Your task to perform on an android device: Open notification settings Image 0: 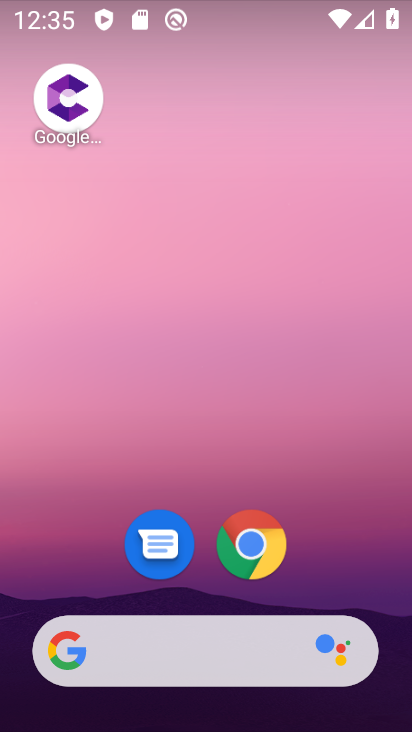
Step 0: drag from (401, 642) to (326, 80)
Your task to perform on an android device: Open notification settings Image 1: 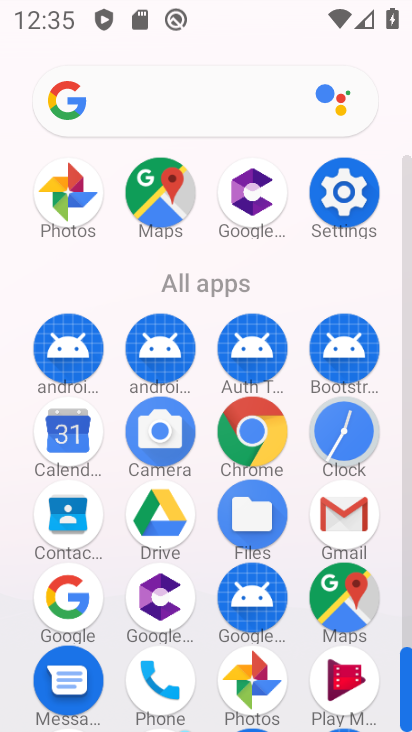
Step 1: drag from (409, 624) to (406, 570)
Your task to perform on an android device: Open notification settings Image 2: 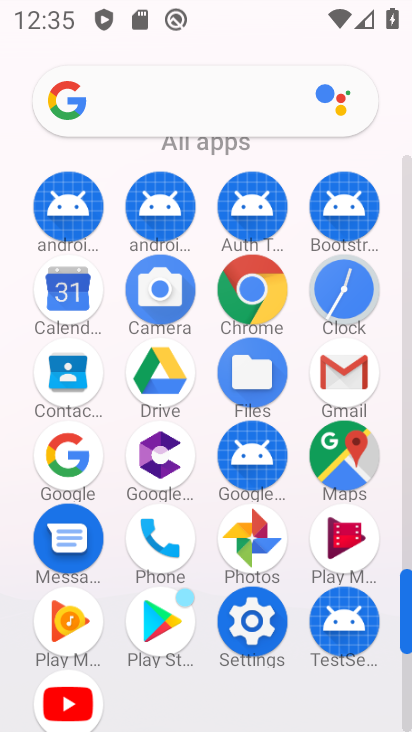
Step 2: click (252, 619)
Your task to perform on an android device: Open notification settings Image 3: 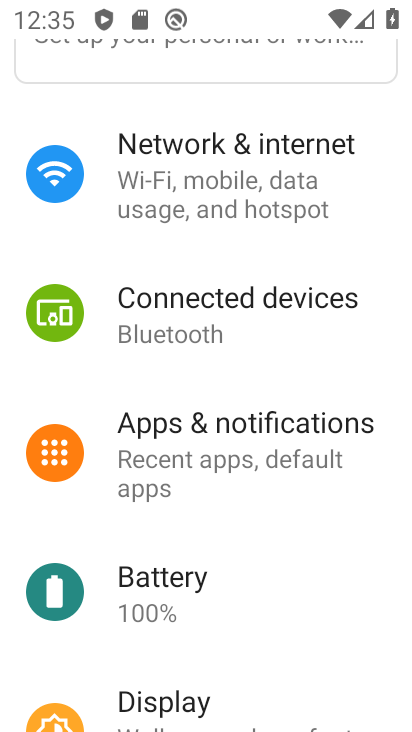
Step 3: click (180, 429)
Your task to perform on an android device: Open notification settings Image 4: 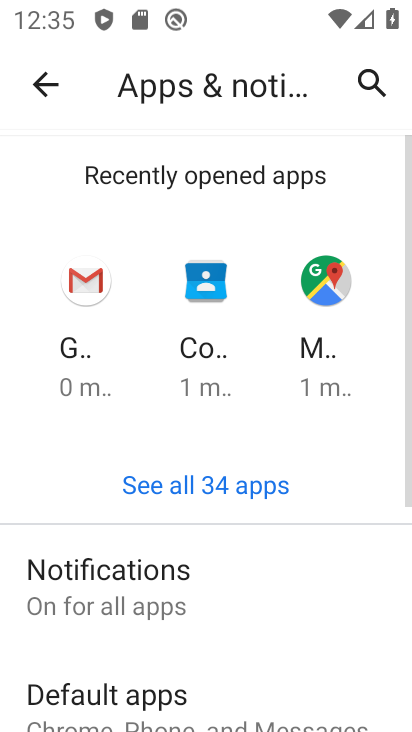
Step 4: drag from (259, 609) to (275, 220)
Your task to perform on an android device: Open notification settings Image 5: 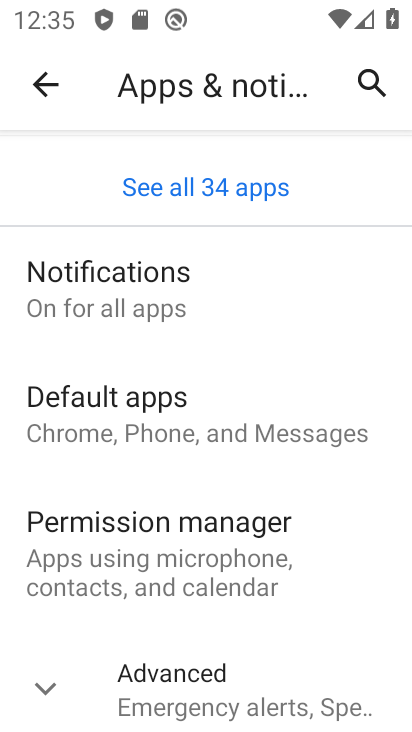
Step 5: click (83, 272)
Your task to perform on an android device: Open notification settings Image 6: 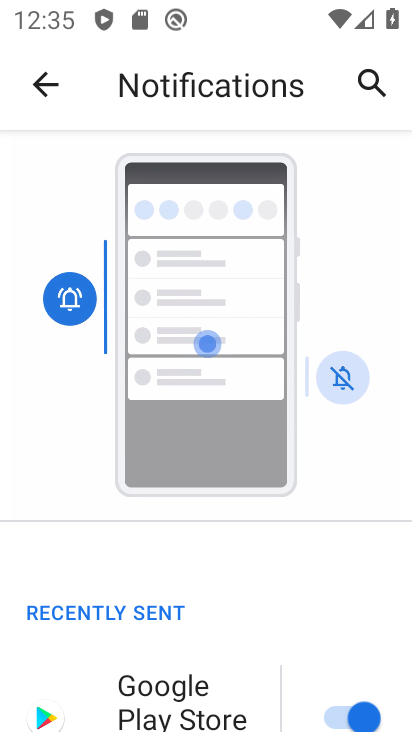
Step 6: drag from (292, 703) to (232, 228)
Your task to perform on an android device: Open notification settings Image 7: 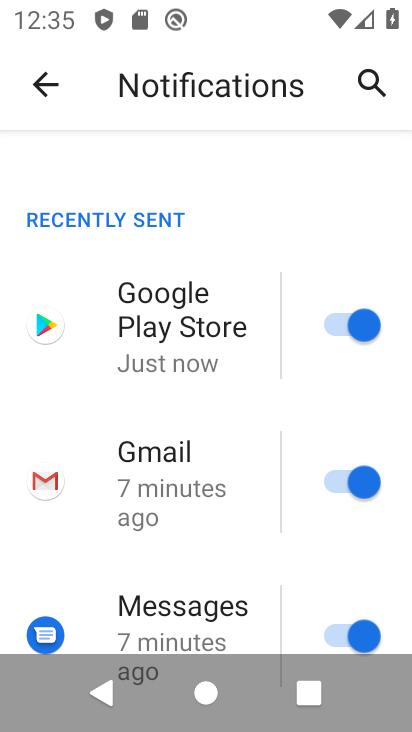
Step 7: drag from (266, 590) to (240, 122)
Your task to perform on an android device: Open notification settings Image 8: 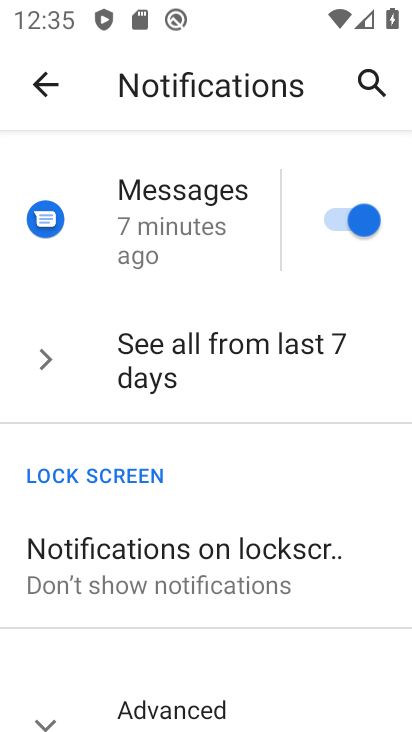
Step 8: drag from (282, 616) to (256, 163)
Your task to perform on an android device: Open notification settings Image 9: 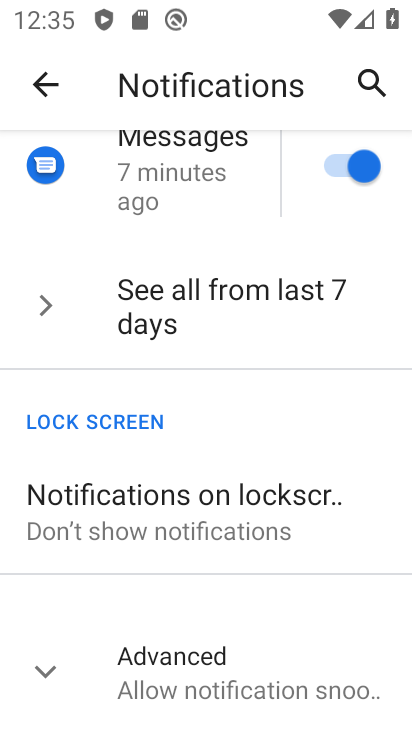
Step 9: click (45, 667)
Your task to perform on an android device: Open notification settings Image 10: 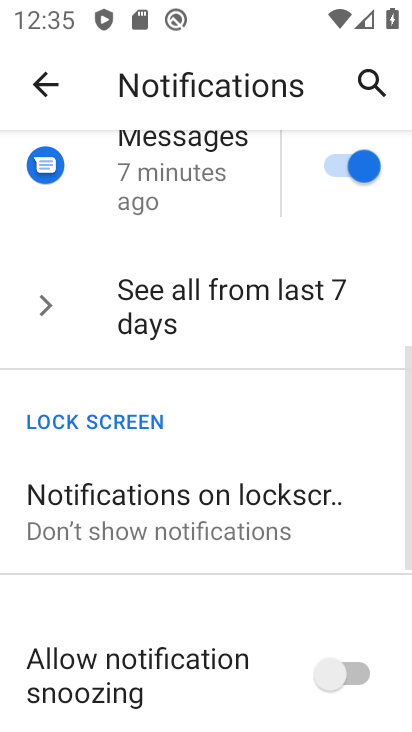
Step 10: task complete